Your task to perform on an android device: open a bookmark in the chrome app Image 0: 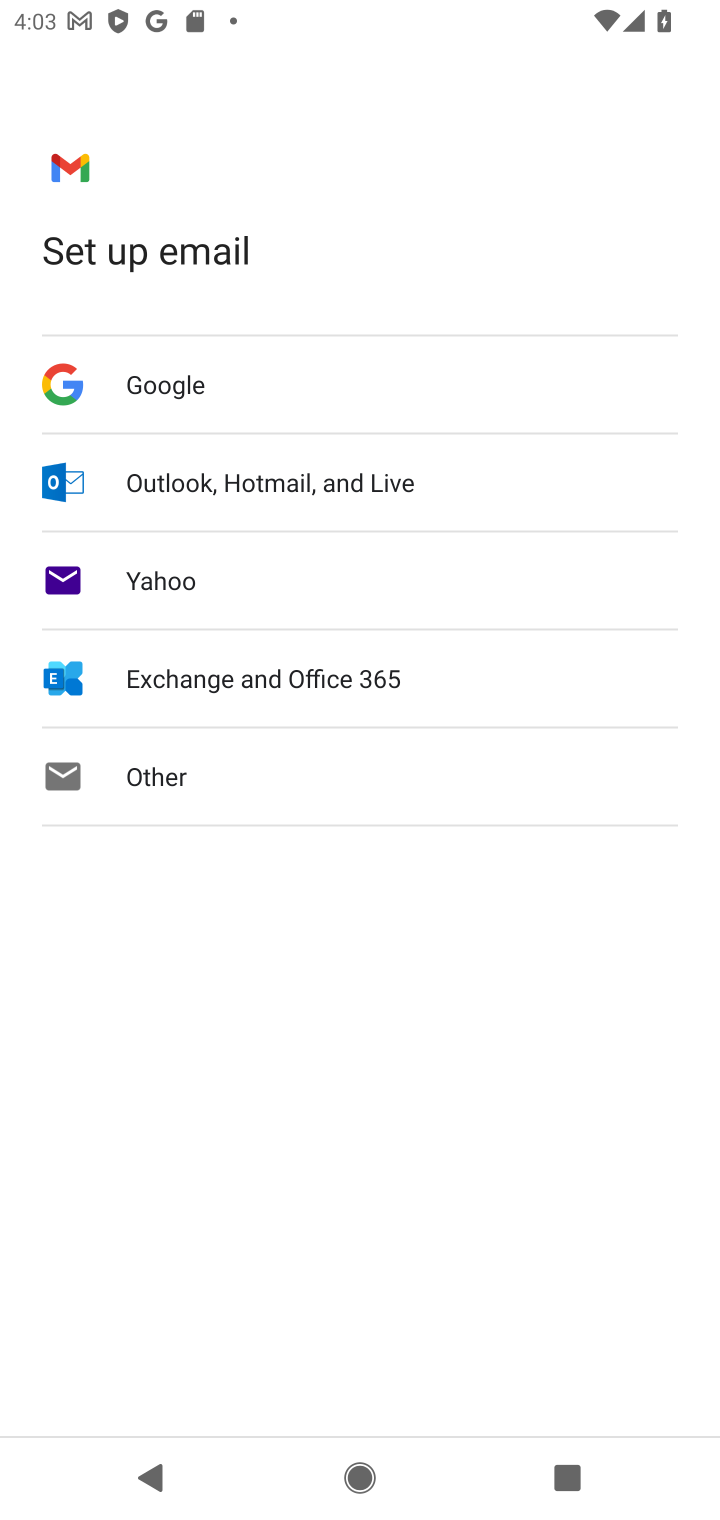
Step 0: press home button
Your task to perform on an android device: open a bookmark in the chrome app Image 1: 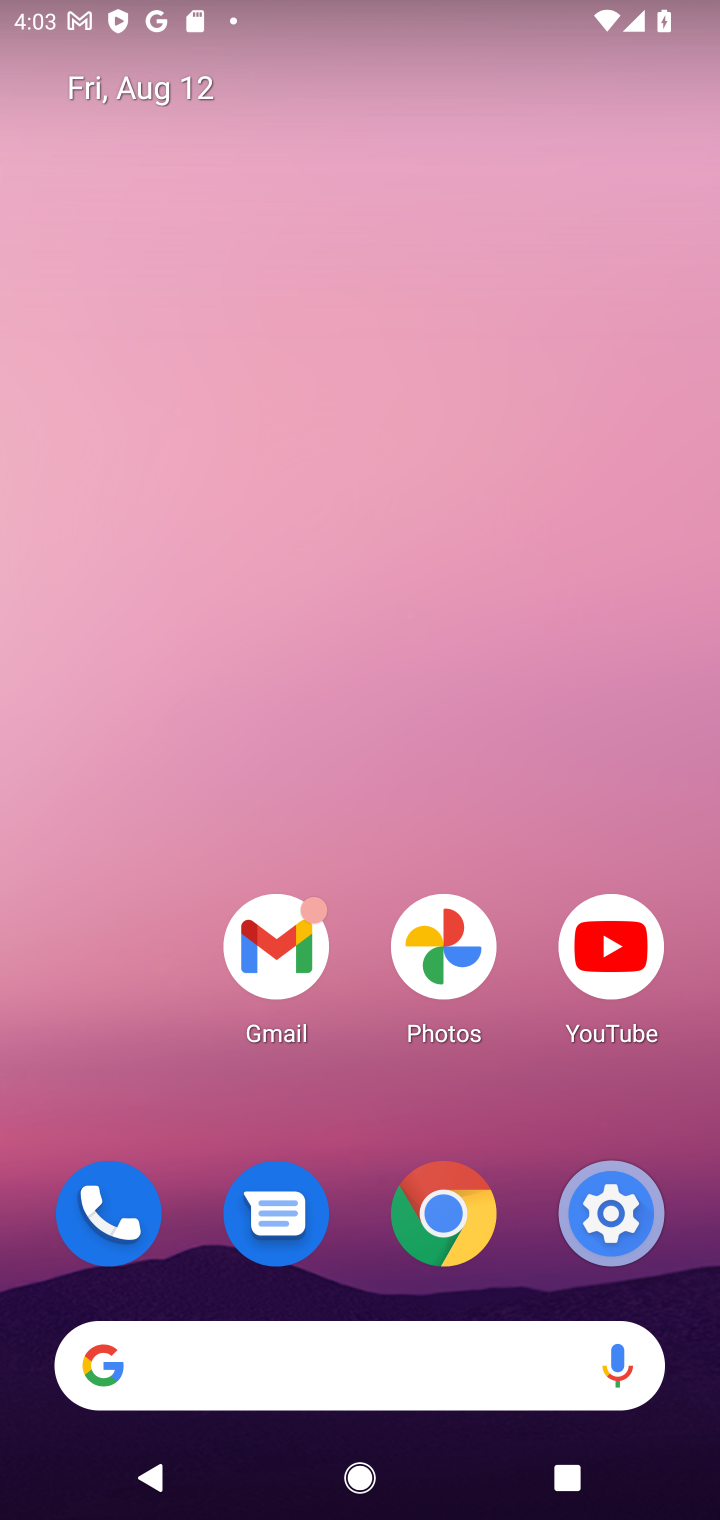
Step 1: drag from (342, 1135) to (457, 231)
Your task to perform on an android device: open a bookmark in the chrome app Image 2: 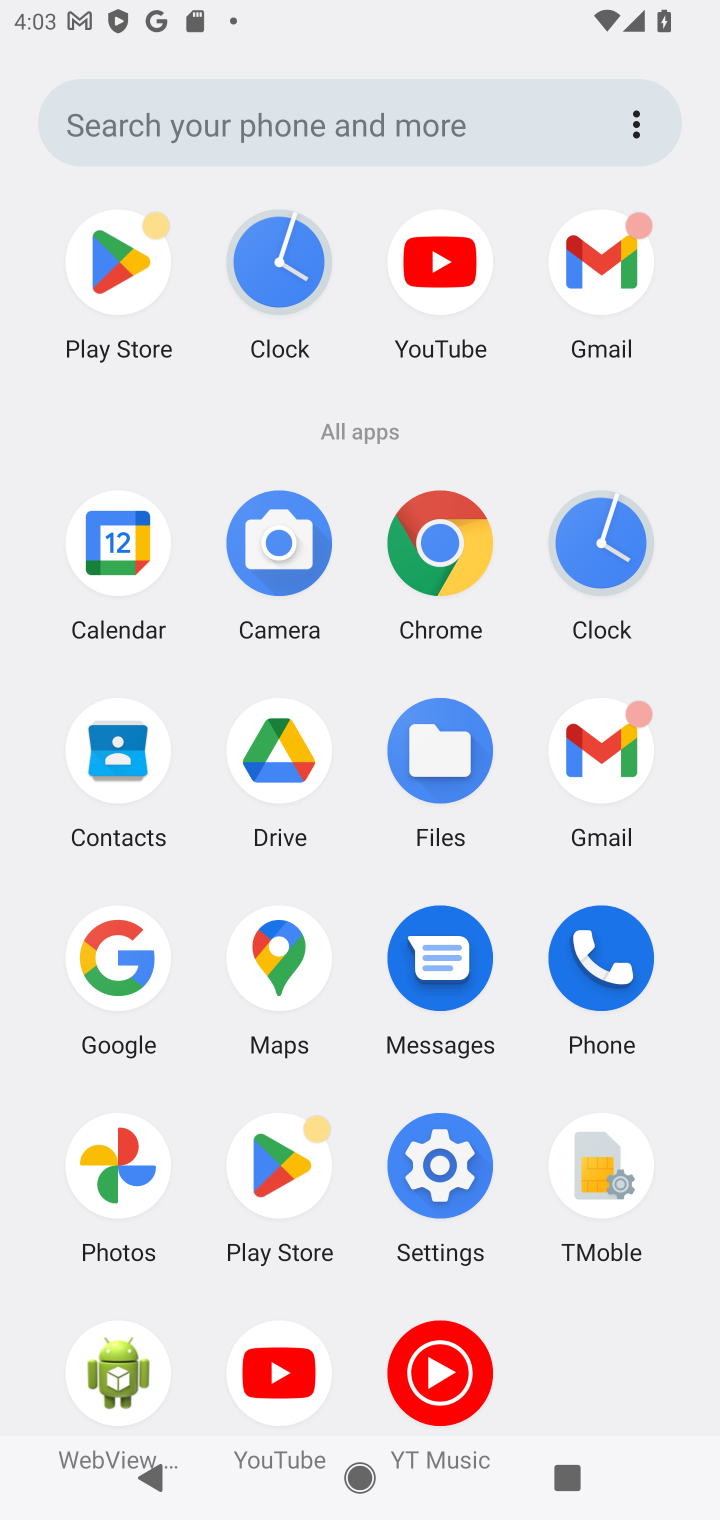
Step 2: click (434, 531)
Your task to perform on an android device: open a bookmark in the chrome app Image 3: 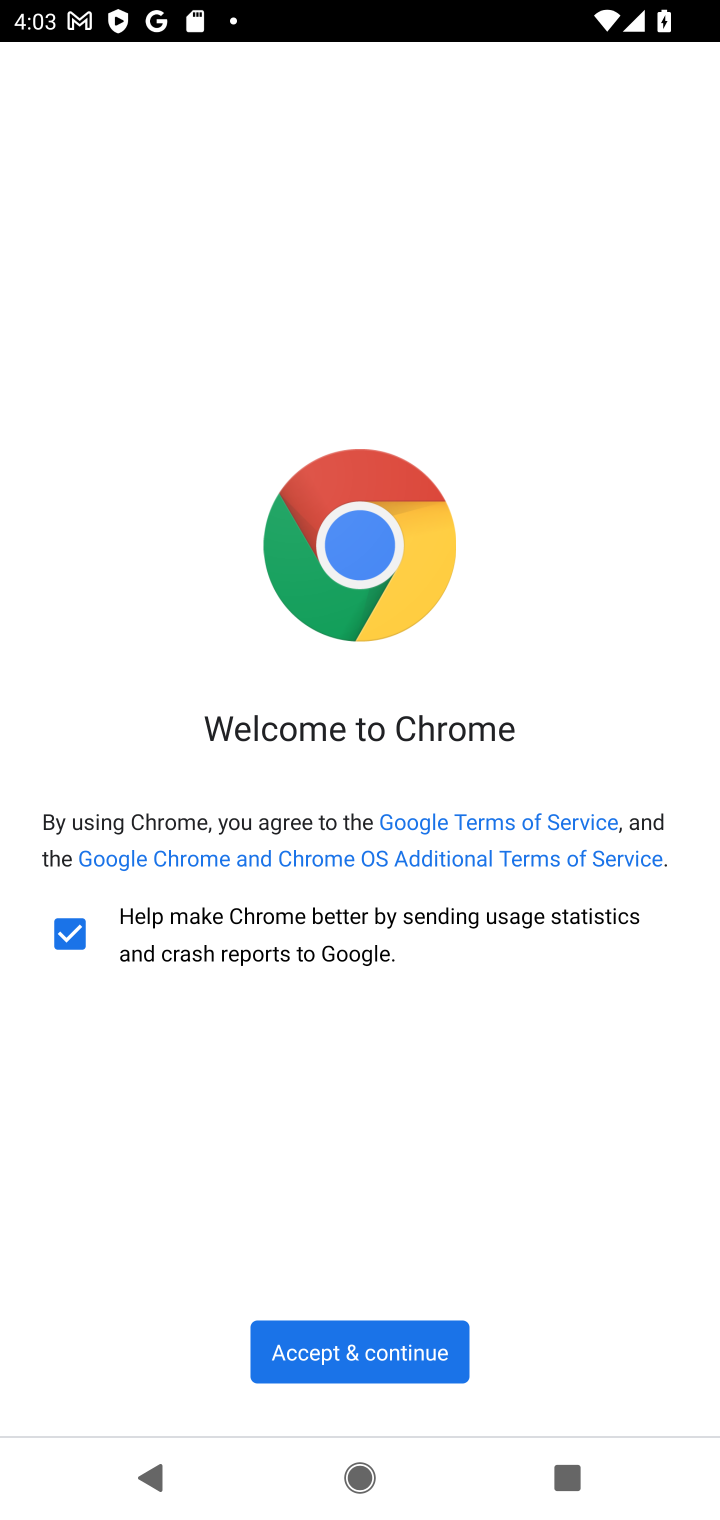
Step 3: click (443, 1367)
Your task to perform on an android device: open a bookmark in the chrome app Image 4: 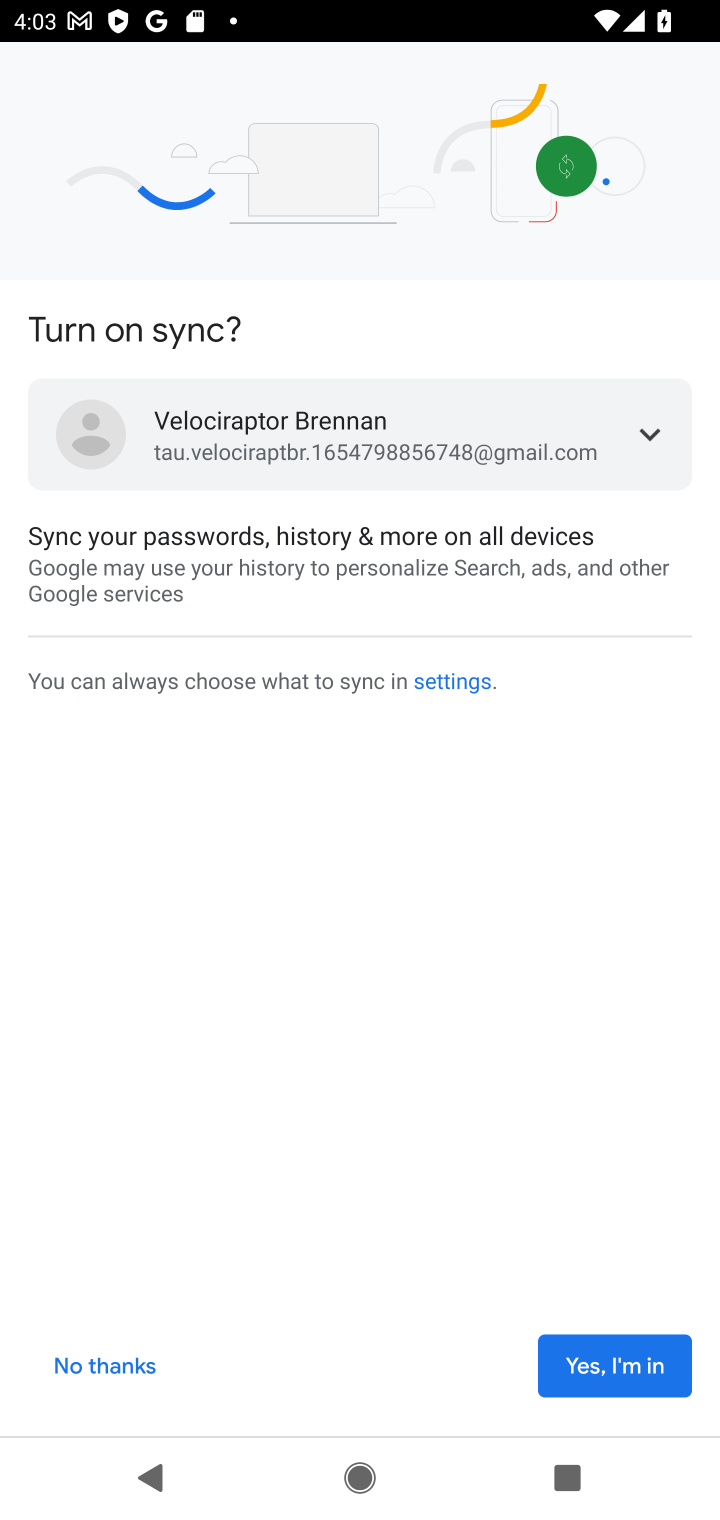
Step 4: click (653, 1379)
Your task to perform on an android device: open a bookmark in the chrome app Image 5: 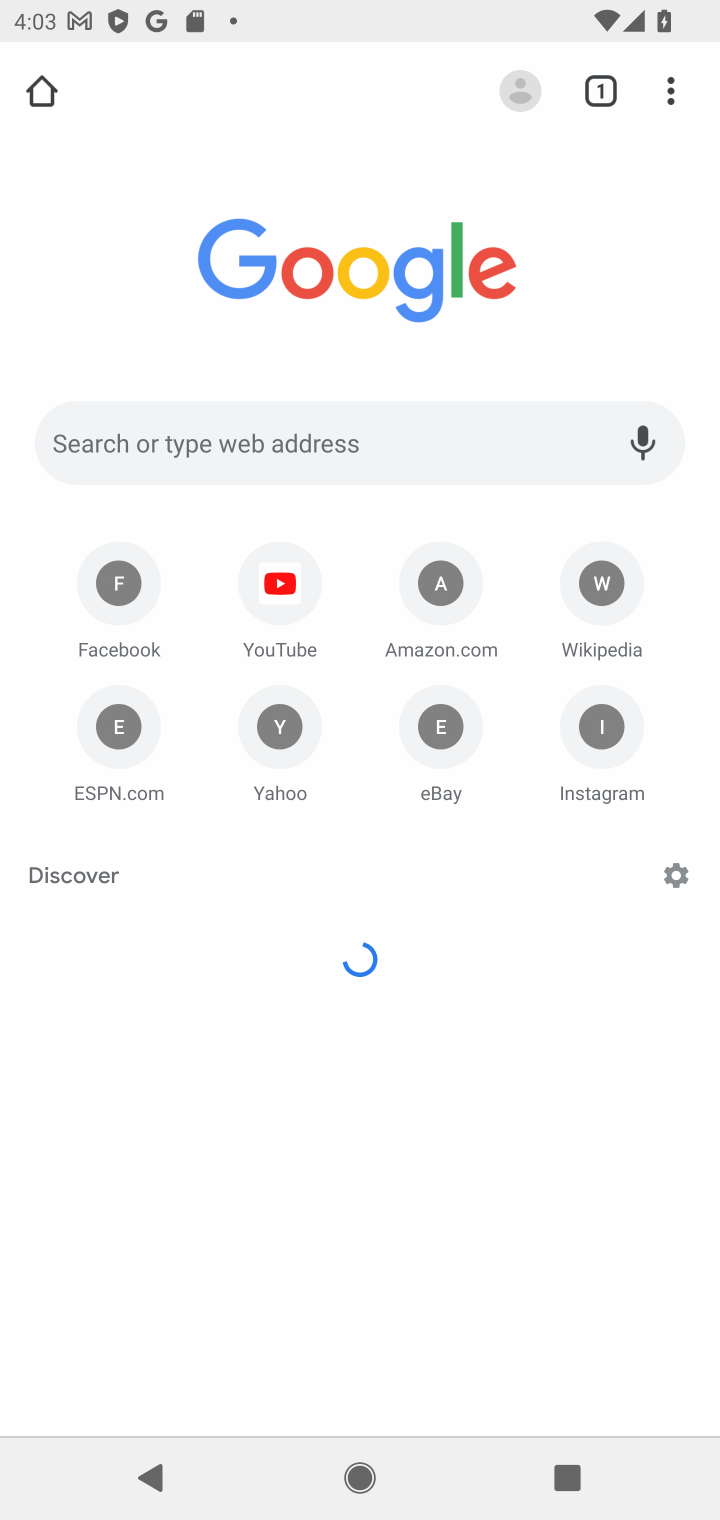
Step 5: click (585, 1374)
Your task to perform on an android device: open a bookmark in the chrome app Image 6: 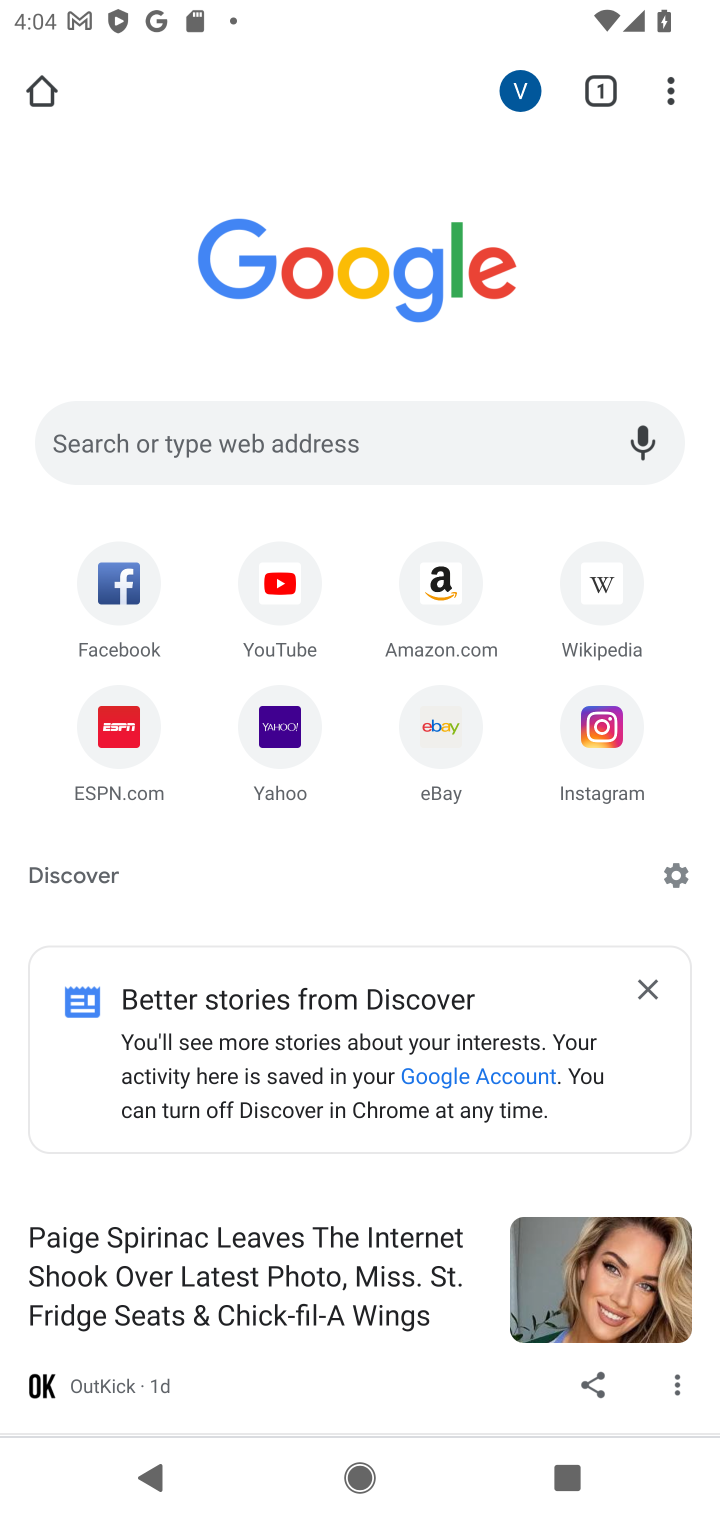
Step 6: drag from (683, 105) to (395, 512)
Your task to perform on an android device: open a bookmark in the chrome app Image 7: 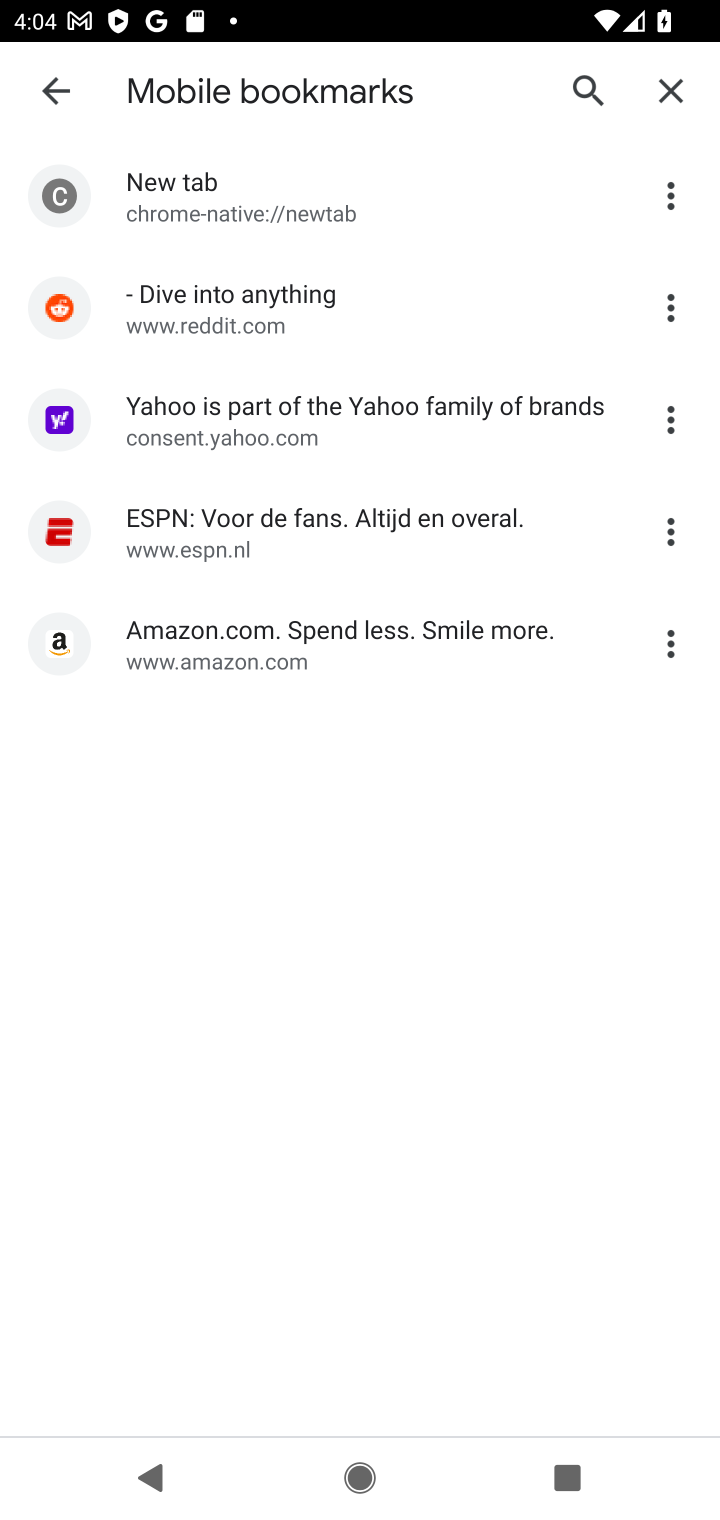
Step 7: click (303, 546)
Your task to perform on an android device: open a bookmark in the chrome app Image 8: 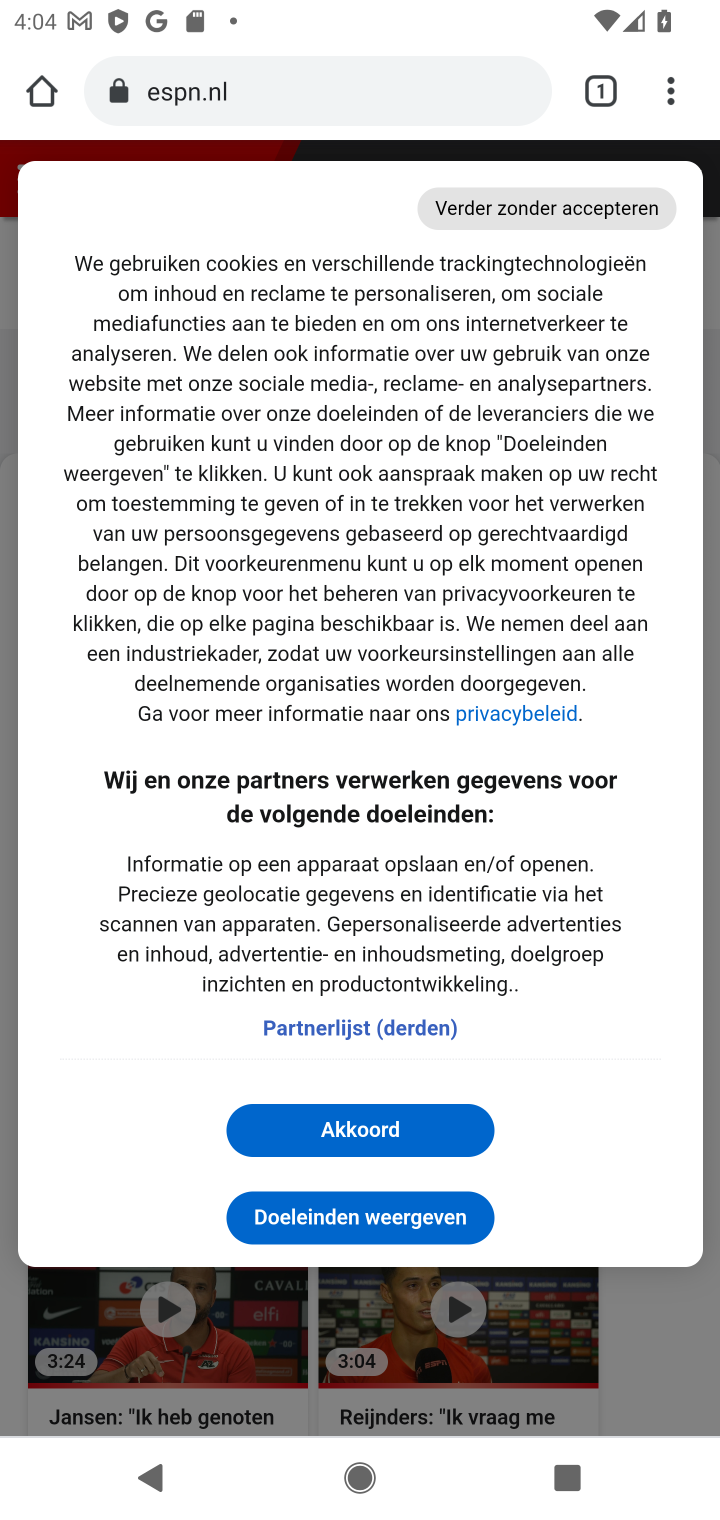
Step 8: task complete